Your task to perform on an android device: Play the last video I watched on Youtube Image 0: 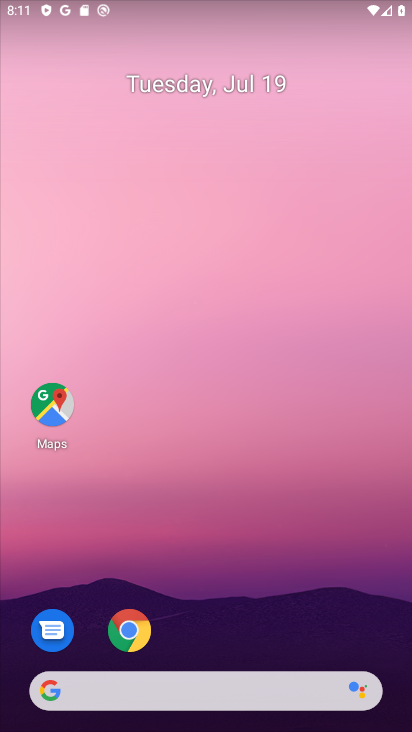
Step 0: drag from (258, 626) to (360, 0)
Your task to perform on an android device: Play the last video I watched on Youtube Image 1: 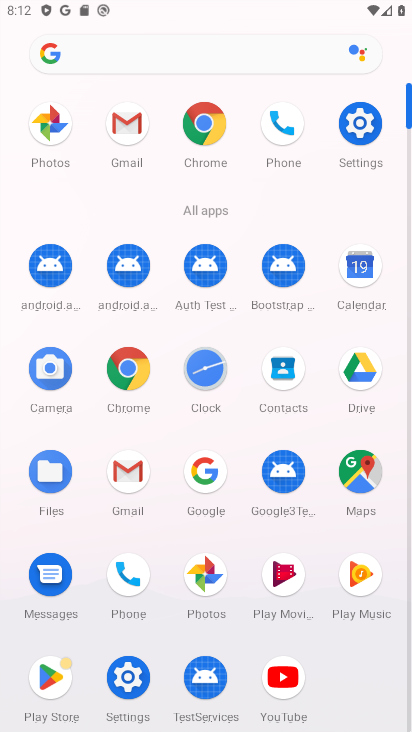
Step 1: click (285, 680)
Your task to perform on an android device: Play the last video I watched on Youtube Image 2: 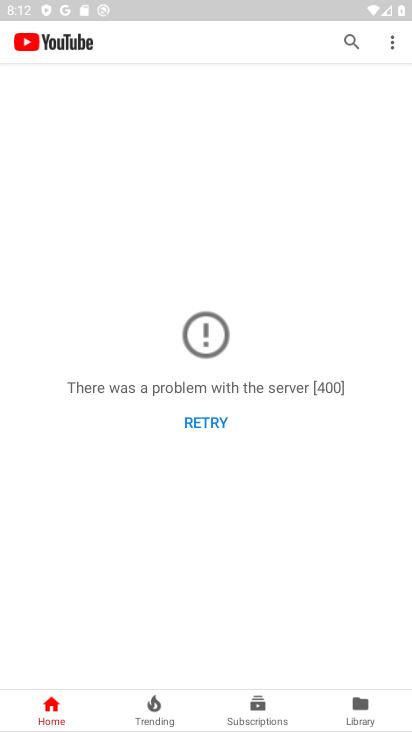
Step 2: click (358, 699)
Your task to perform on an android device: Play the last video I watched on Youtube Image 3: 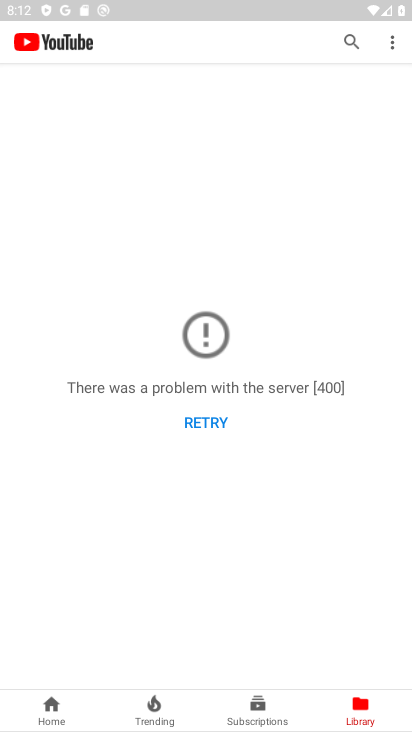
Step 3: click (222, 414)
Your task to perform on an android device: Play the last video I watched on Youtube Image 4: 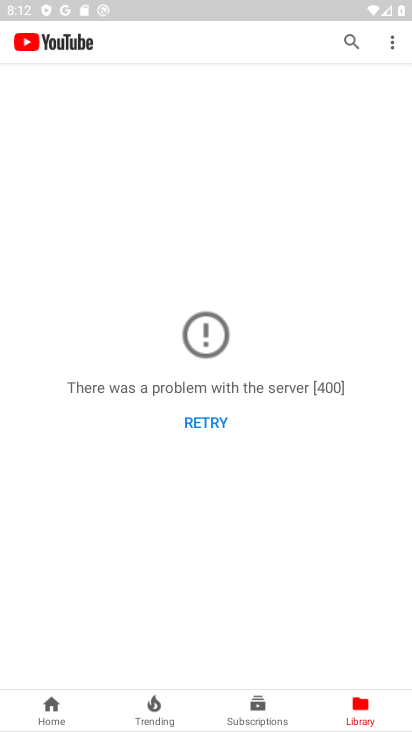
Step 4: click (222, 414)
Your task to perform on an android device: Play the last video I watched on Youtube Image 5: 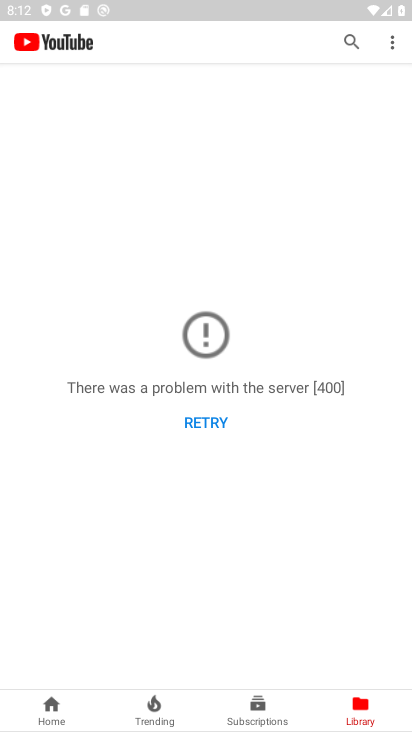
Step 5: task complete